Your task to perform on an android device: turn off notifications settings in the gmail app Image 0: 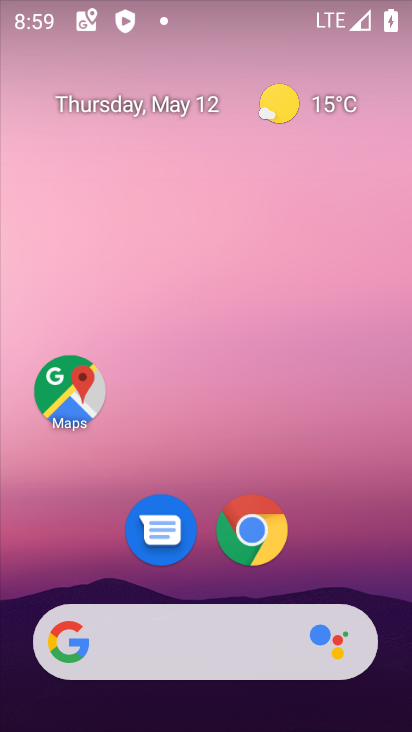
Step 0: drag from (209, 719) to (268, 167)
Your task to perform on an android device: turn off notifications settings in the gmail app Image 1: 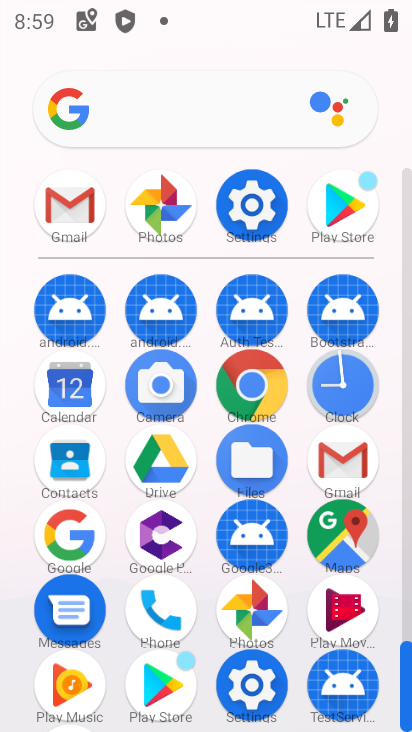
Step 1: click (74, 225)
Your task to perform on an android device: turn off notifications settings in the gmail app Image 2: 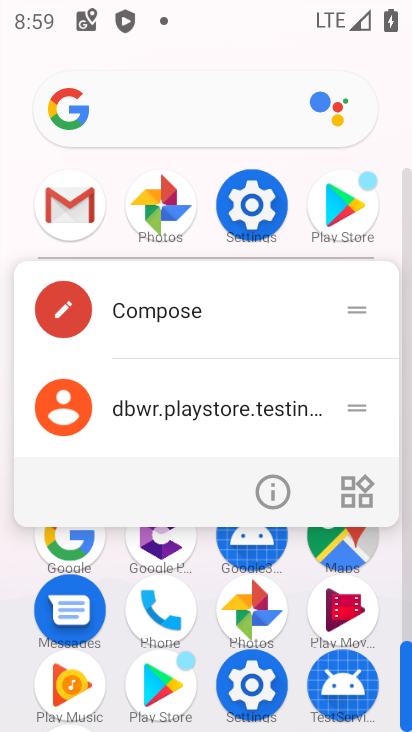
Step 2: click (265, 497)
Your task to perform on an android device: turn off notifications settings in the gmail app Image 3: 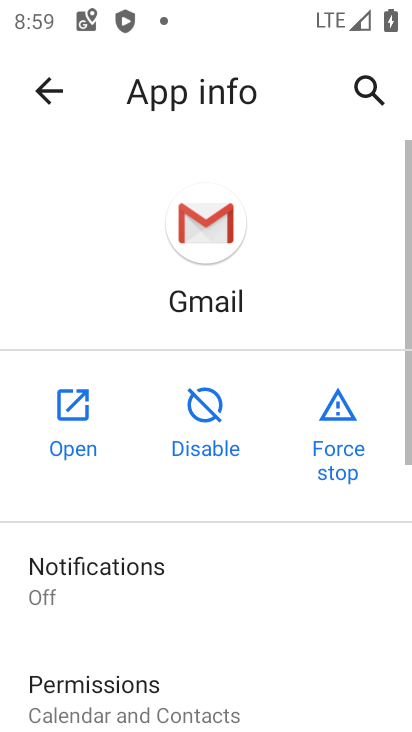
Step 3: click (45, 586)
Your task to perform on an android device: turn off notifications settings in the gmail app Image 4: 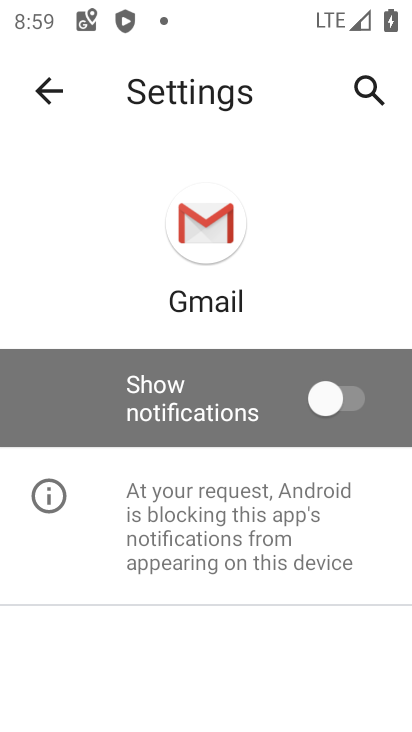
Step 4: task complete